Your task to perform on an android device: Open Google Maps and go to "Timeline" Image 0: 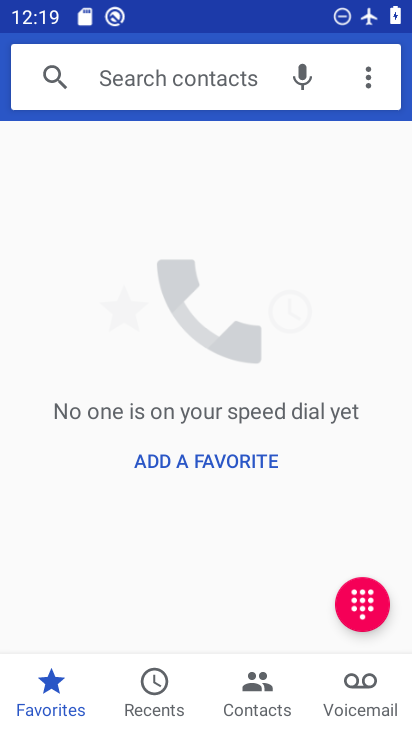
Step 0: press home button
Your task to perform on an android device: Open Google Maps and go to "Timeline" Image 1: 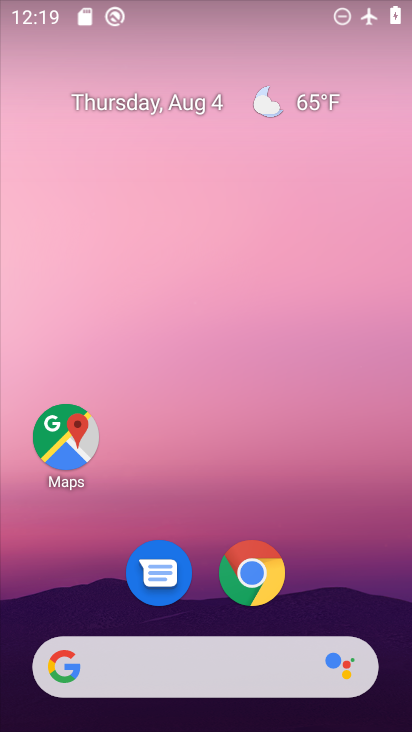
Step 1: drag from (362, 550) to (255, 174)
Your task to perform on an android device: Open Google Maps and go to "Timeline" Image 2: 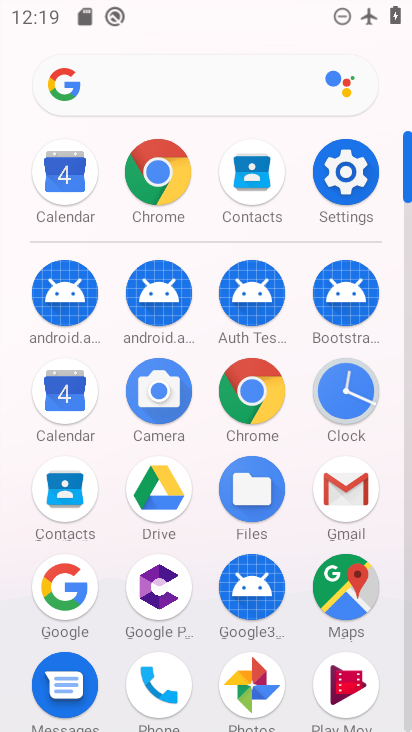
Step 2: click (344, 589)
Your task to perform on an android device: Open Google Maps and go to "Timeline" Image 3: 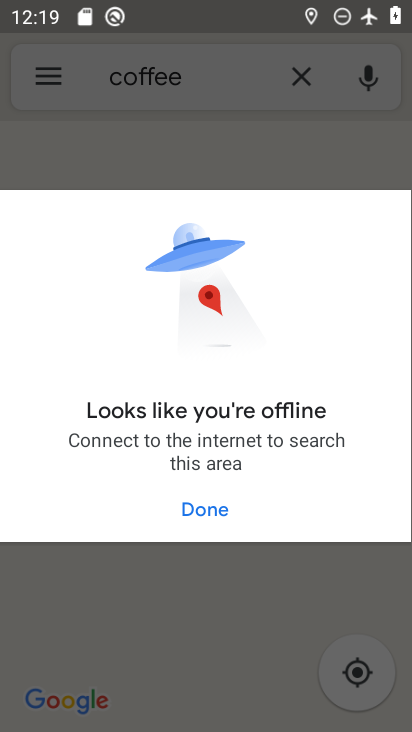
Step 3: click (217, 508)
Your task to perform on an android device: Open Google Maps and go to "Timeline" Image 4: 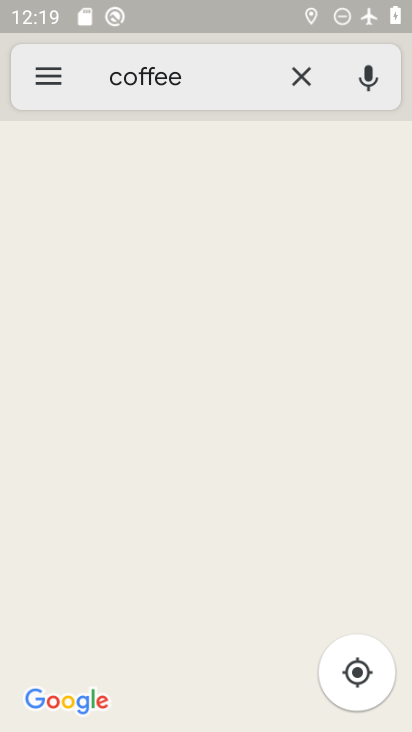
Step 4: click (34, 80)
Your task to perform on an android device: Open Google Maps and go to "Timeline" Image 5: 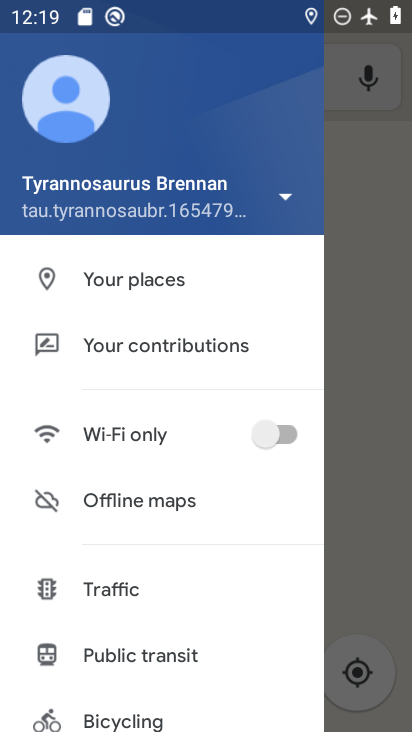
Step 5: task complete